Your task to perform on an android device: clear all cookies in the chrome app Image 0: 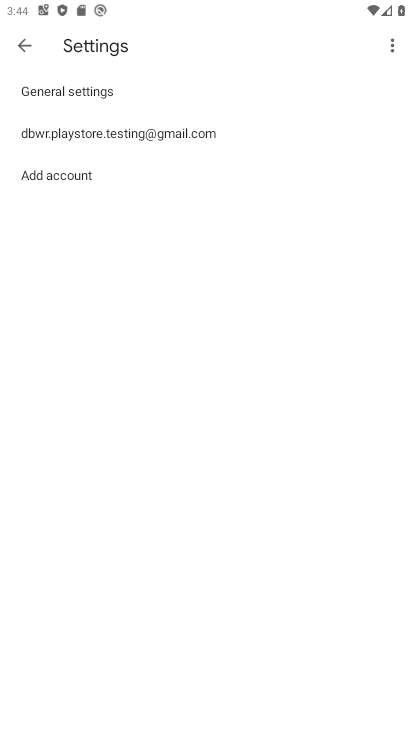
Step 0: press home button
Your task to perform on an android device: clear all cookies in the chrome app Image 1: 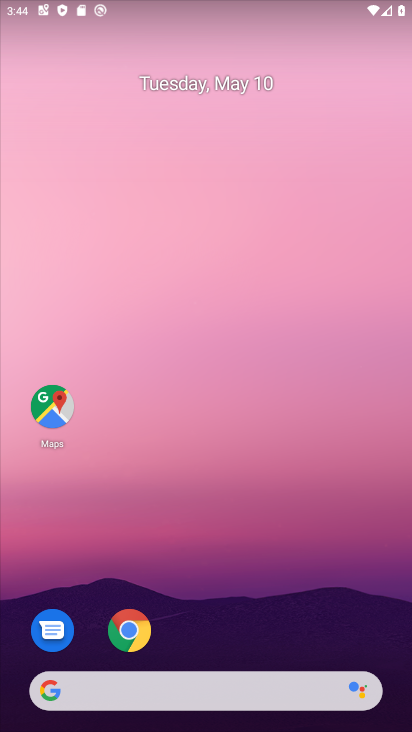
Step 1: click (121, 636)
Your task to perform on an android device: clear all cookies in the chrome app Image 2: 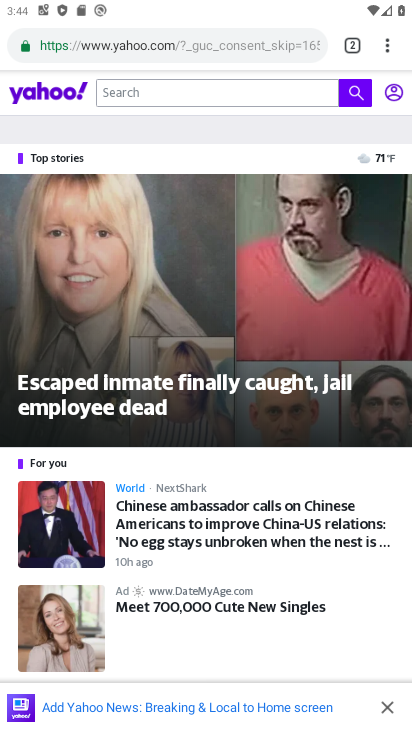
Step 2: click (379, 47)
Your task to perform on an android device: clear all cookies in the chrome app Image 3: 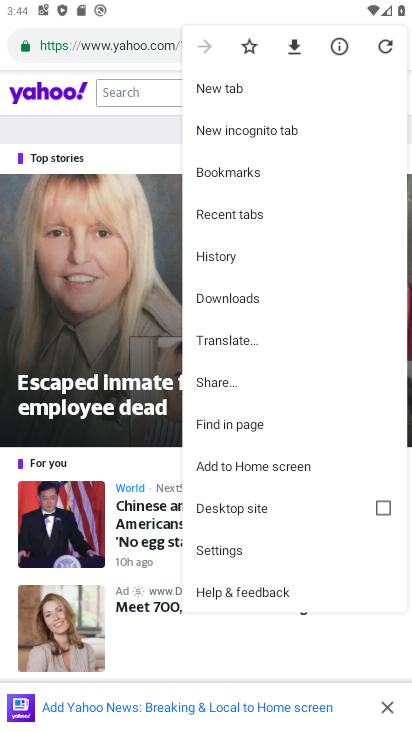
Step 3: click (257, 551)
Your task to perform on an android device: clear all cookies in the chrome app Image 4: 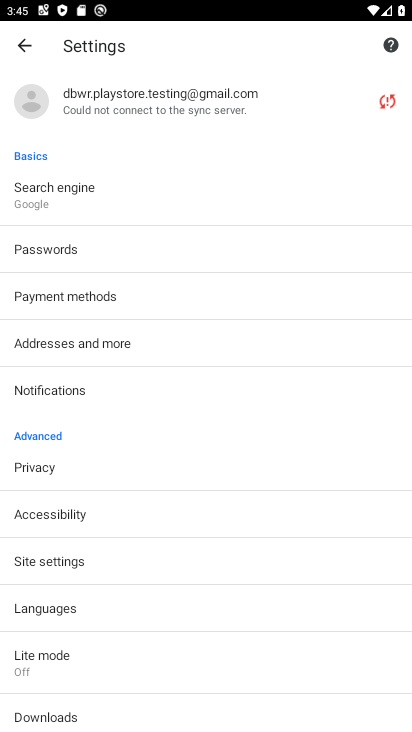
Step 4: click (25, 56)
Your task to perform on an android device: clear all cookies in the chrome app Image 5: 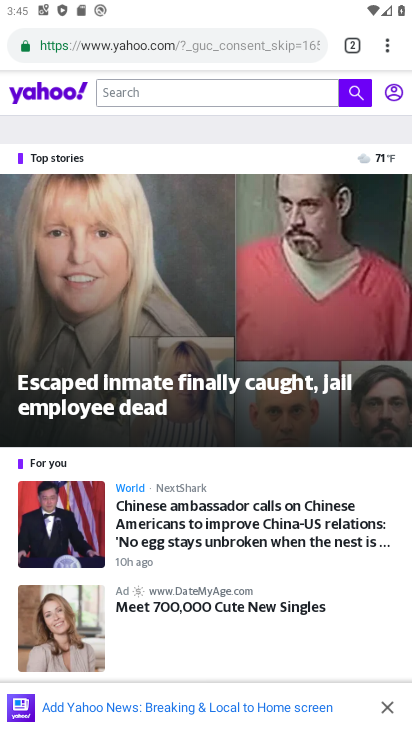
Step 5: click (382, 33)
Your task to perform on an android device: clear all cookies in the chrome app Image 6: 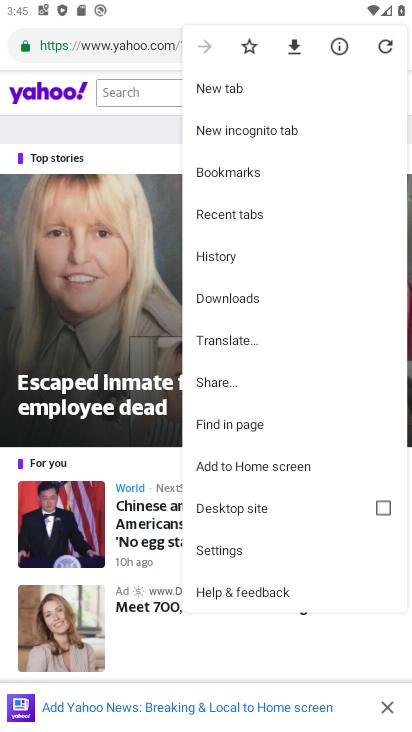
Step 6: click (296, 260)
Your task to perform on an android device: clear all cookies in the chrome app Image 7: 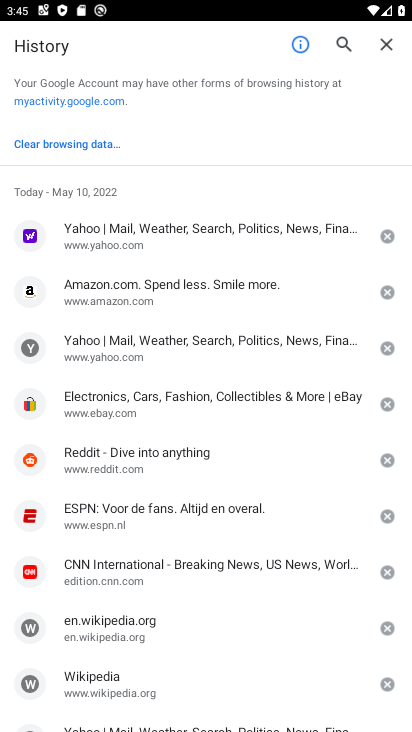
Step 7: click (64, 154)
Your task to perform on an android device: clear all cookies in the chrome app Image 8: 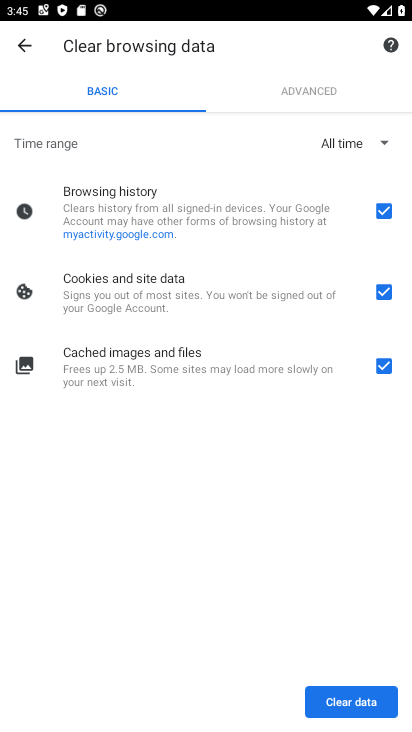
Step 8: click (382, 212)
Your task to perform on an android device: clear all cookies in the chrome app Image 9: 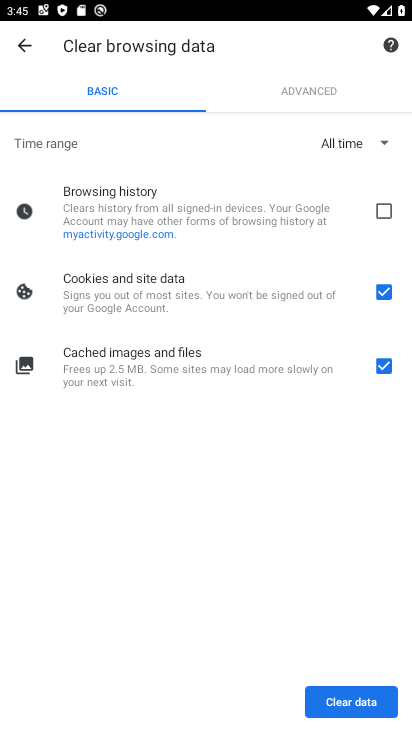
Step 9: click (384, 374)
Your task to perform on an android device: clear all cookies in the chrome app Image 10: 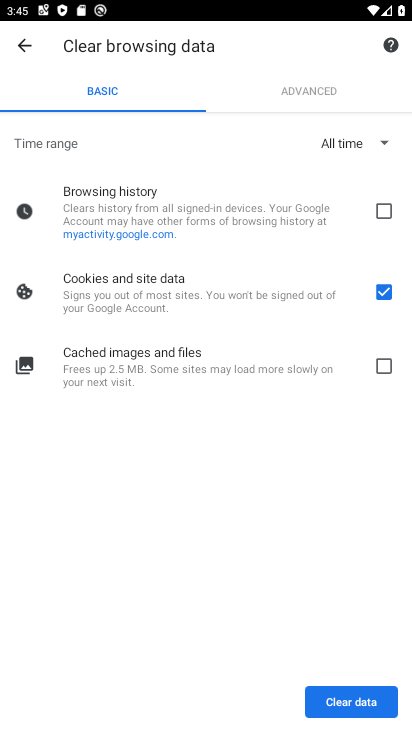
Step 10: click (336, 681)
Your task to perform on an android device: clear all cookies in the chrome app Image 11: 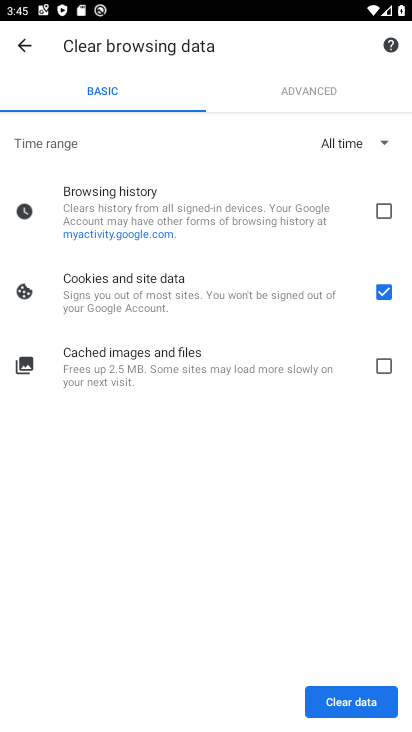
Step 11: click (342, 691)
Your task to perform on an android device: clear all cookies in the chrome app Image 12: 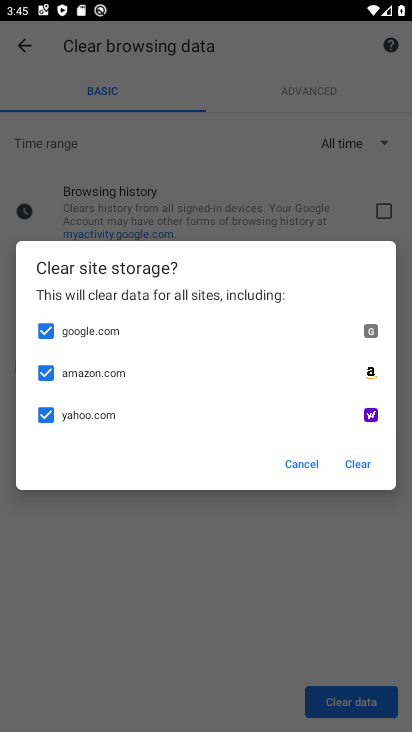
Step 12: click (350, 694)
Your task to perform on an android device: clear all cookies in the chrome app Image 13: 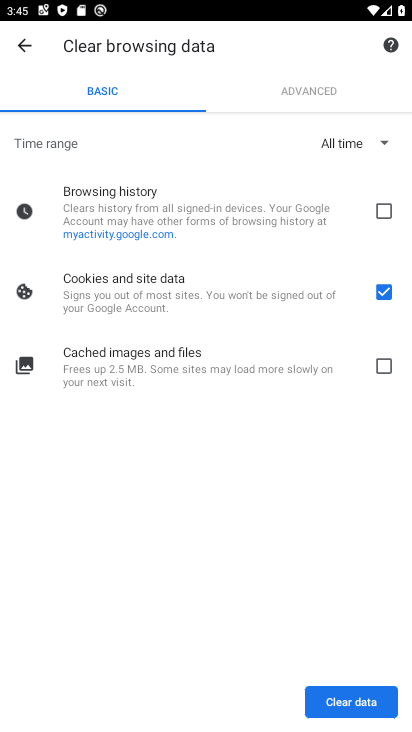
Step 13: click (364, 707)
Your task to perform on an android device: clear all cookies in the chrome app Image 14: 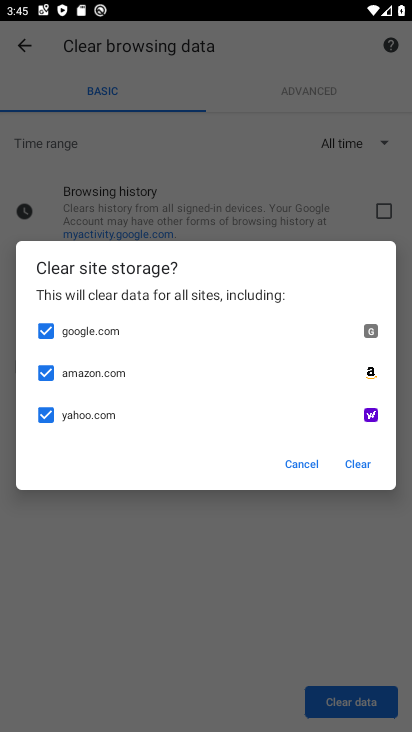
Step 14: click (369, 458)
Your task to perform on an android device: clear all cookies in the chrome app Image 15: 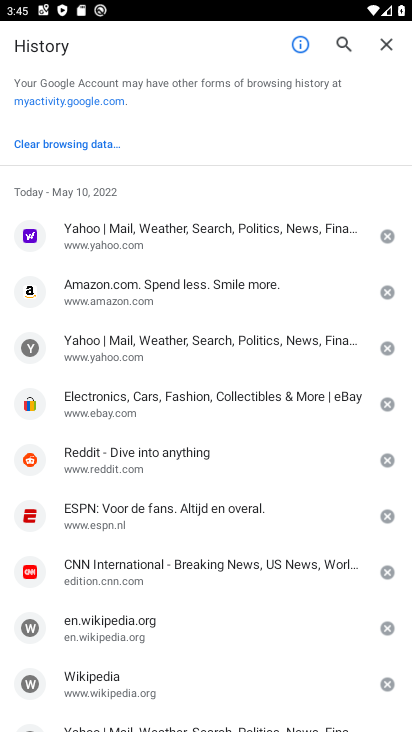
Step 15: task complete